Your task to perform on an android device: refresh tabs in the chrome app Image 0: 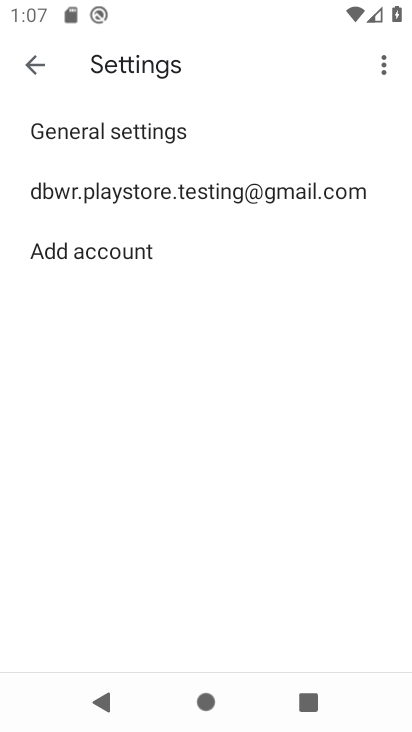
Step 0: press home button
Your task to perform on an android device: refresh tabs in the chrome app Image 1: 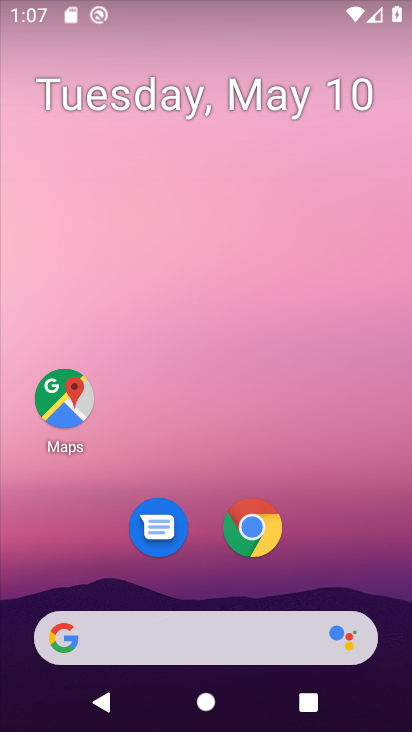
Step 1: click (242, 534)
Your task to perform on an android device: refresh tabs in the chrome app Image 2: 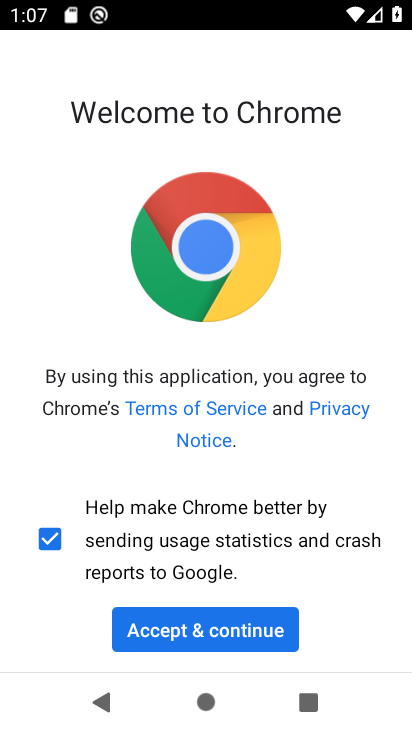
Step 2: click (224, 633)
Your task to perform on an android device: refresh tabs in the chrome app Image 3: 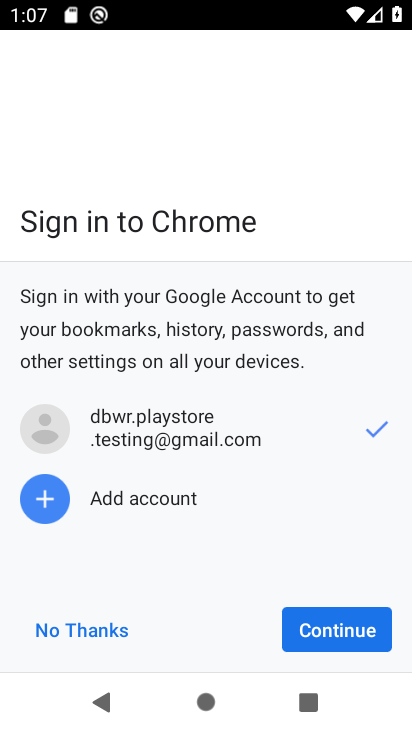
Step 3: click (302, 634)
Your task to perform on an android device: refresh tabs in the chrome app Image 4: 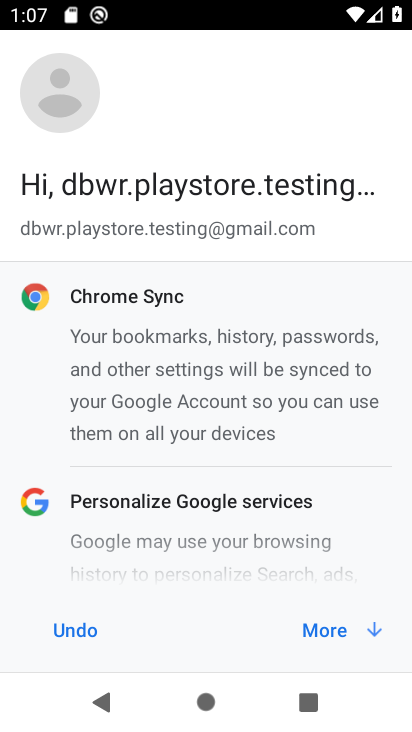
Step 4: click (317, 622)
Your task to perform on an android device: refresh tabs in the chrome app Image 5: 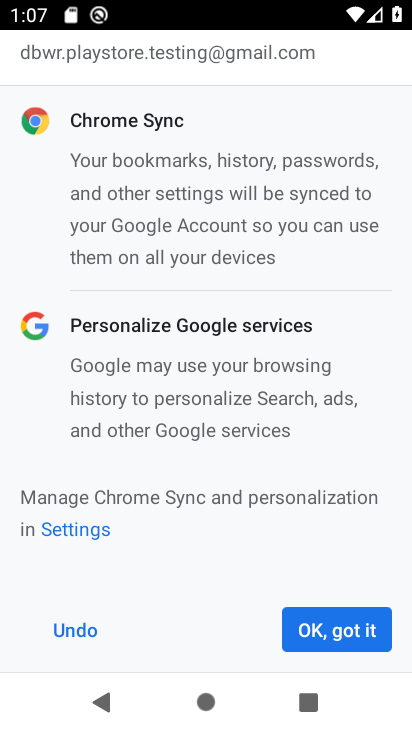
Step 5: click (317, 622)
Your task to perform on an android device: refresh tabs in the chrome app Image 6: 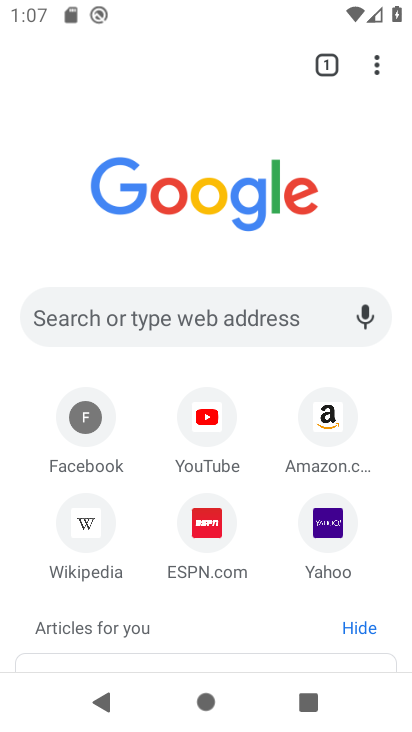
Step 6: click (380, 60)
Your task to perform on an android device: refresh tabs in the chrome app Image 7: 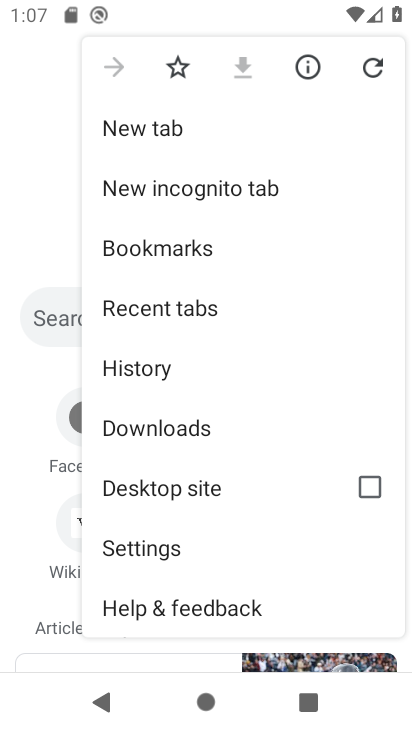
Step 7: click (370, 70)
Your task to perform on an android device: refresh tabs in the chrome app Image 8: 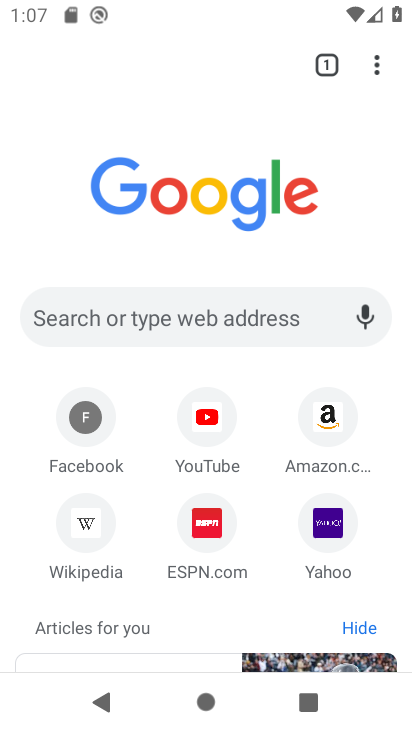
Step 8: task complete